Your task to perform on an android device: Open sound settings Image 0: 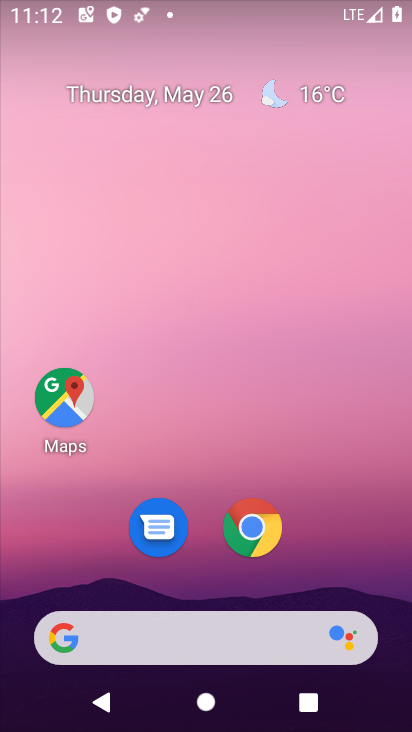
Step 0: drag from (180, 583) to (143, 0)
Your task to perform on an android device: Open sound settings Image 1: 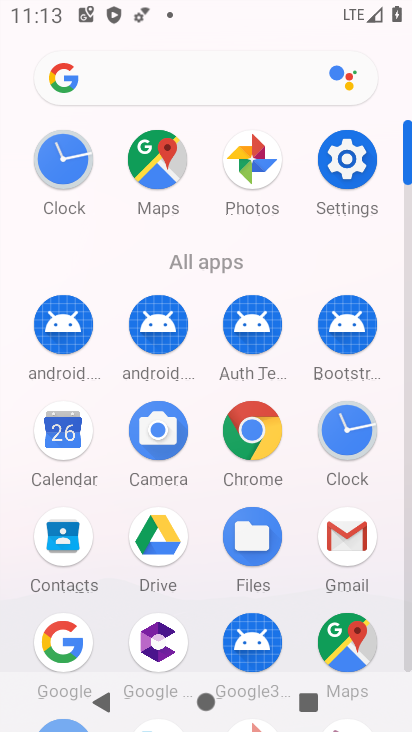
Step 1: click (339, 177)
Your task to perform on an android device: Open sound settings Image 2: 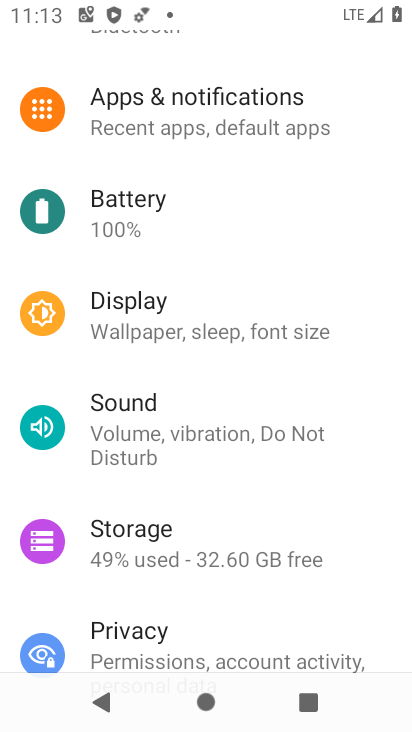
Step 2: click (158, 458)
Your task to perform on an android device: Open sound settings Image 3: 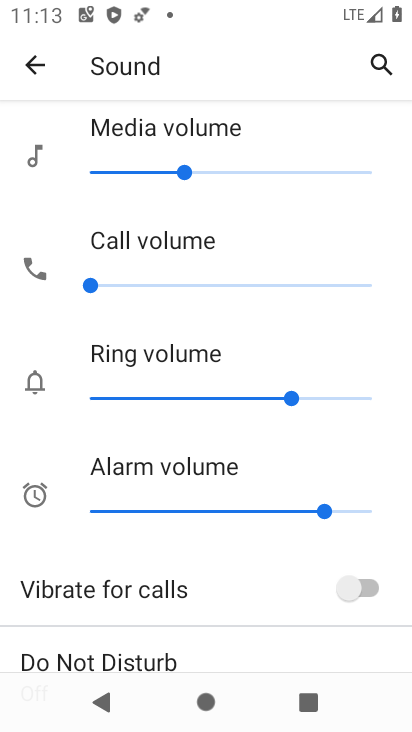
Step 3: task complete